Your task to perform on an android device: open app "Firefox Browser" (install if not already installed) and enter user name: "hashed@outlook.com" and password: "congestive" Image 0: 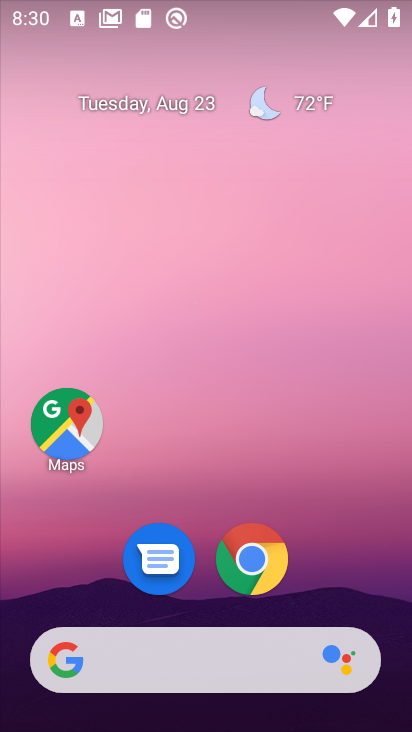
Step 0: drag from (215, 472) to (246, 77)
Your task to perform on an android device: open app "Firefox Browser" (install if not already installed) and enter user name: "hashed@outlook.com" and password: "congestive" Image 1: 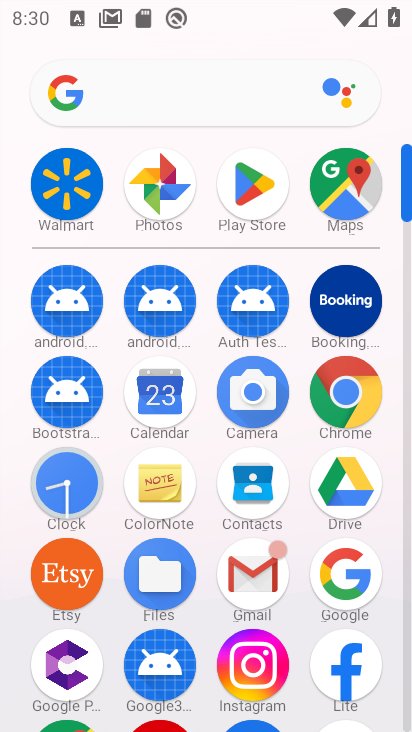
Step 1: click (236, 176)
Your task to perform on an android device: open app "Firefox Browser" (install if not already installed) and enter user name: "hashed@outlook.com" and password: "congestive" Image 2: 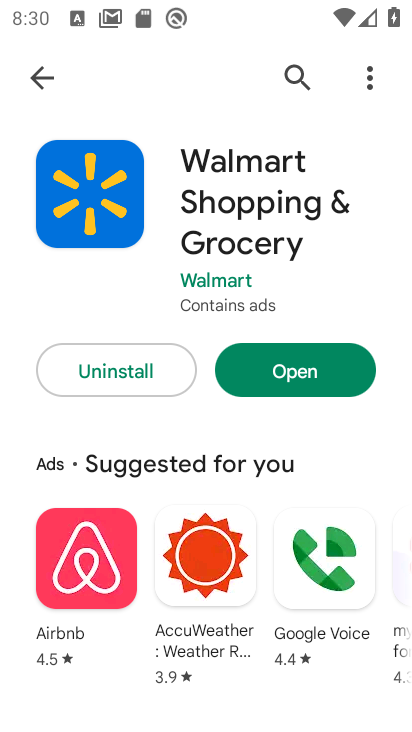
Step 2: click (293, 78)
Your task to perform on an android device: open app "Firefox Browser" (install if not already installed) and enter user name: "hashed@outlook.com" and password: "congestive" Image 3: 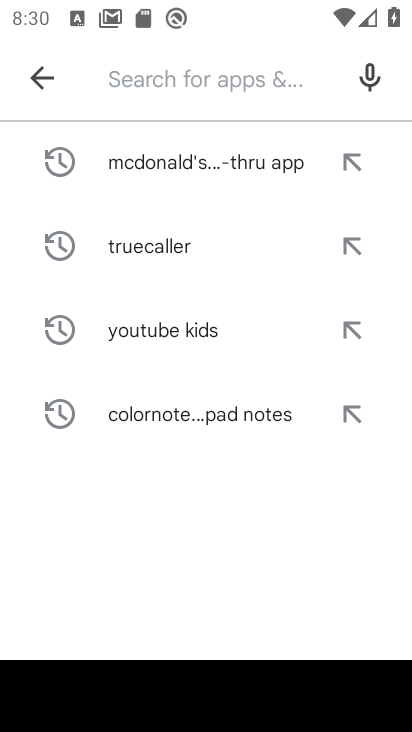
Step 3: type "Firefox Browser"
Your task to perform on an android device: open app "Firefox Browser" (install if not already installed) and enter user name: "hashed@outlook.com" and password: "congestive" Image 4: 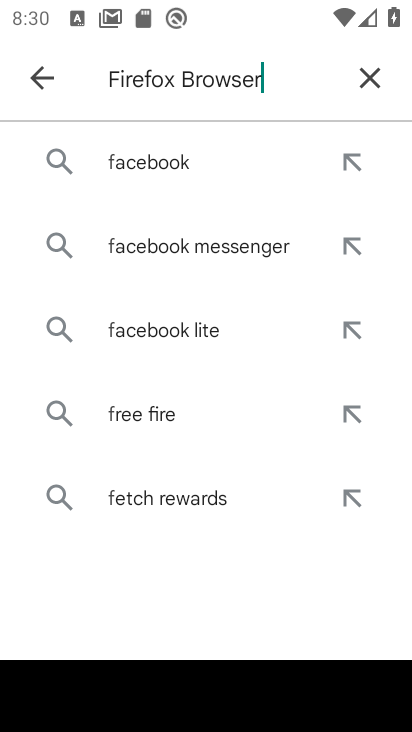
Step 4: type ""
Your task to perform on an android device: open app "Firefox Browser" (install if not already installed) and enter user name: "hashed@outlook.com" and password: "congestive" Image 5: 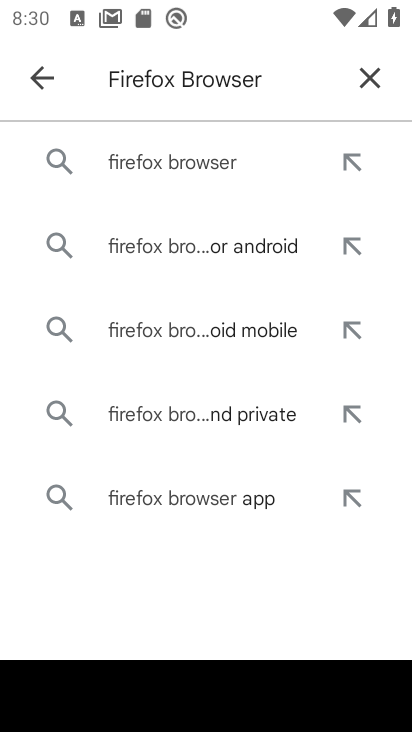
Step 5: click (137, 155)
Your task to perform on an android device: open app "Firefox Browser" (install if not already installed) and enter user name: "hashed@outlook.com" and password: "congestive" Image 6: 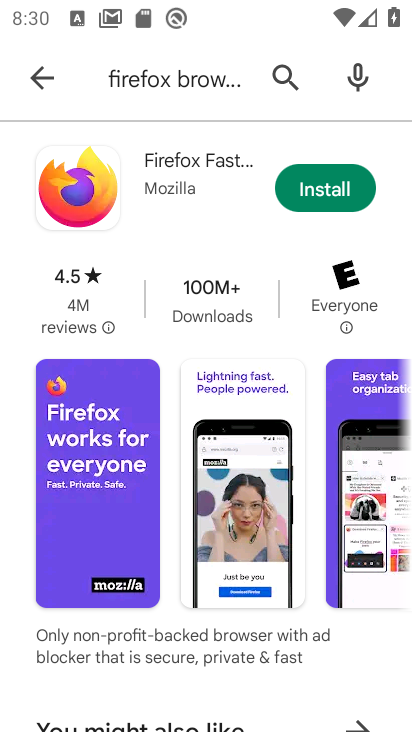
Step 6: click (311, 183)
Your task to perform on an android device: open app "Firefox Browser" (install if not already installed) and enter user name: "hashed@outlook.com" and password: "congestive" Image 7: 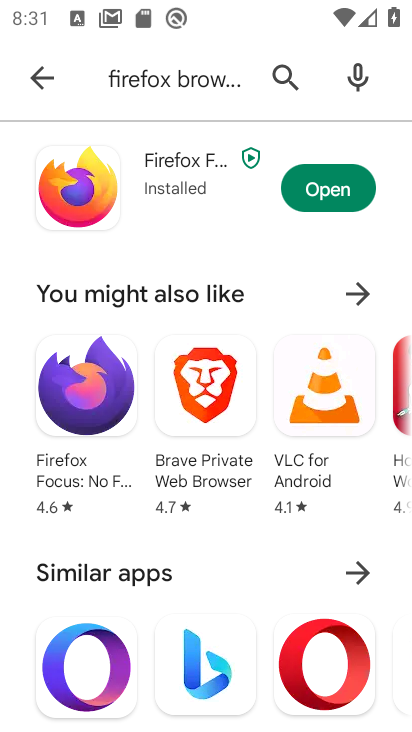
Step 7: click (330, 178)
Your task to perform on an android device: open app "Firefox Browser" (install if not already installed) and enter user name: "hashed@outlook.com" and password: "congestive" Image 8: 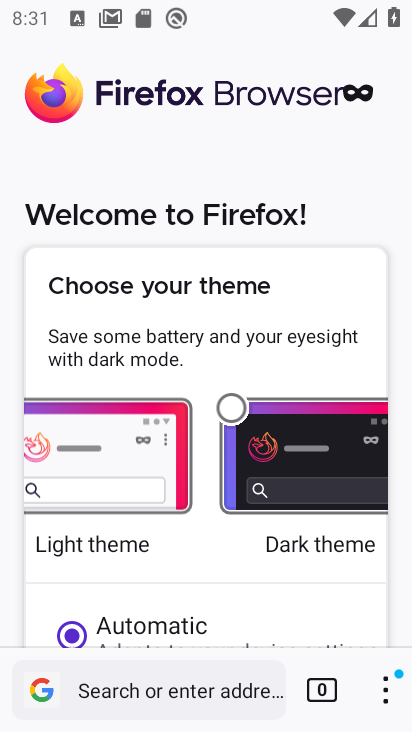
Step 8: task complete